Your task to perform on an android device: allow cookies in the chrome app Image 0: 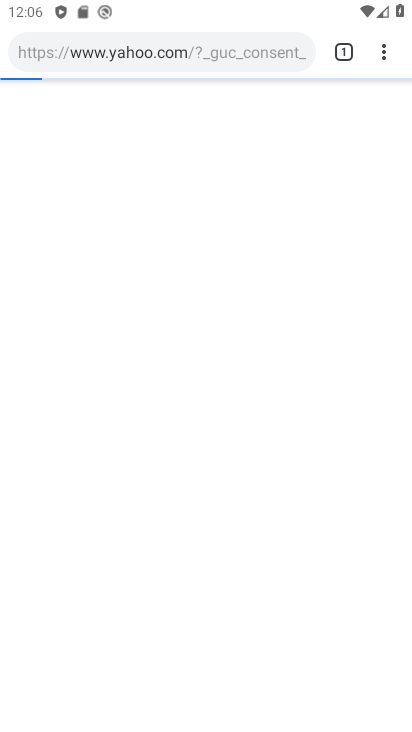
Step 0: press home button
Your task to perform on an android device: allow cookies in the chrome app Image 1: 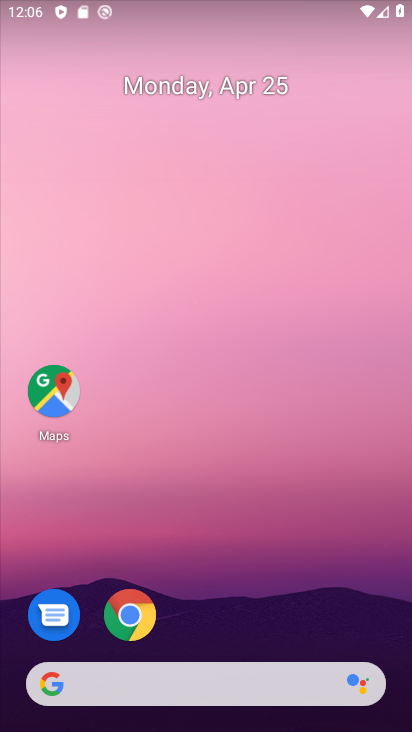
Step 1: drag from (371, 634) to (386, 100)
Your task to perform on an android device: allow cookies in the chrome app Image 2: 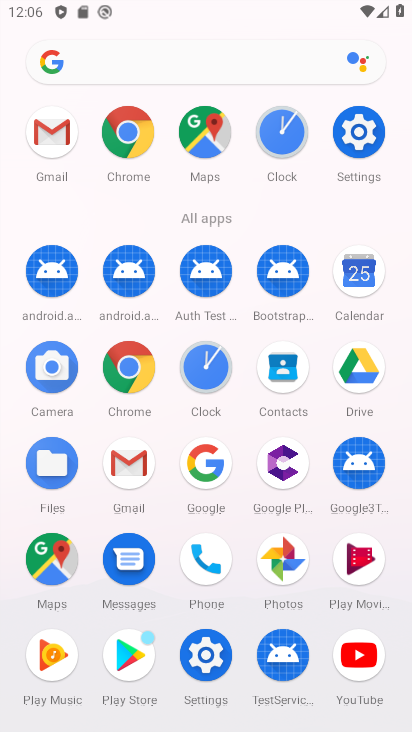
Step 2: click (131, 134)
Your task to perform on an android device: allow cookies in the chrome app Image 3: 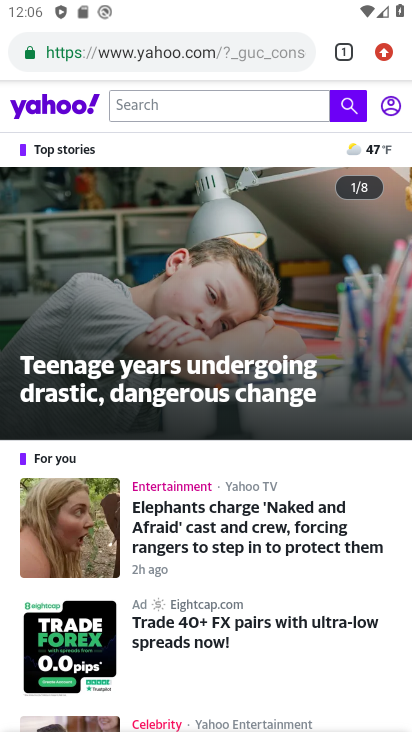
Step 3: click (388, 49)
Your task to perform on an android device: allow cookies in the chrome app Image 4: 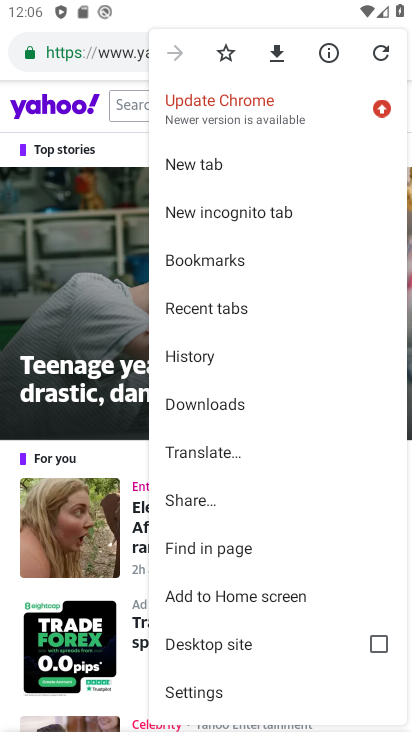
Step 4: click (209, 694)
Your task to perform on an android device: allow cookies in the chrome app Image 5: 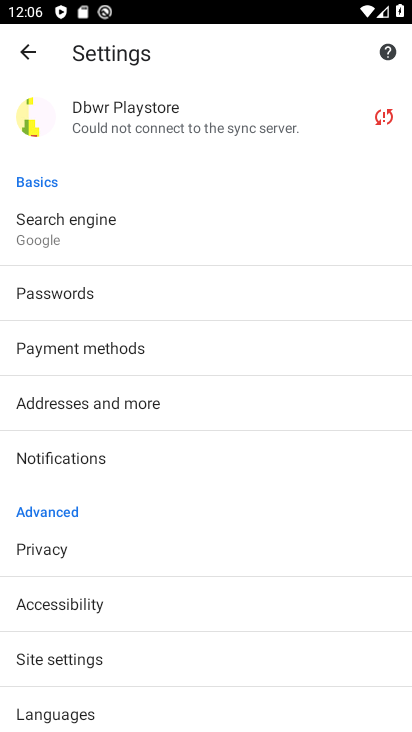
Step 5: drag from (260, 598) to (258, 499)
Your task to perform on an android device: allow cookies in the chrome app Image 6: 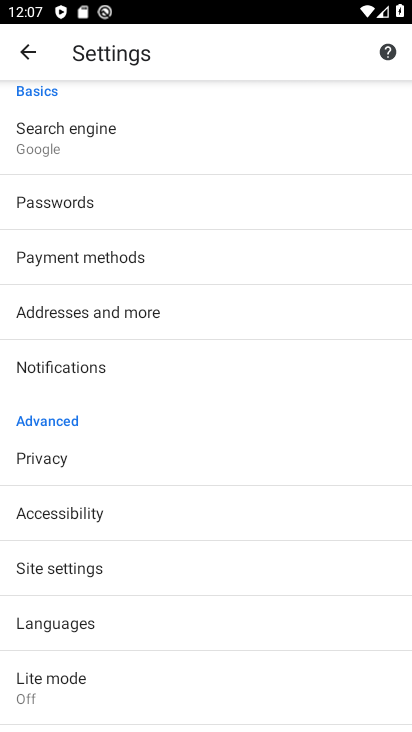
Step 6: drag from (250, 637) to (265, 527)
Your task to perform on an android device: allow cookies in the chrome app Image 7: 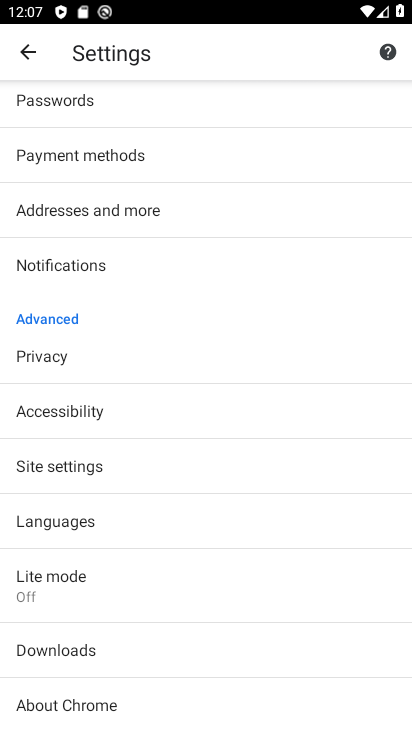
Step 7: drag from (238, 587) to (255, 484)
Your task to perform on an android device: allow cookies in the chrome app Image 8: 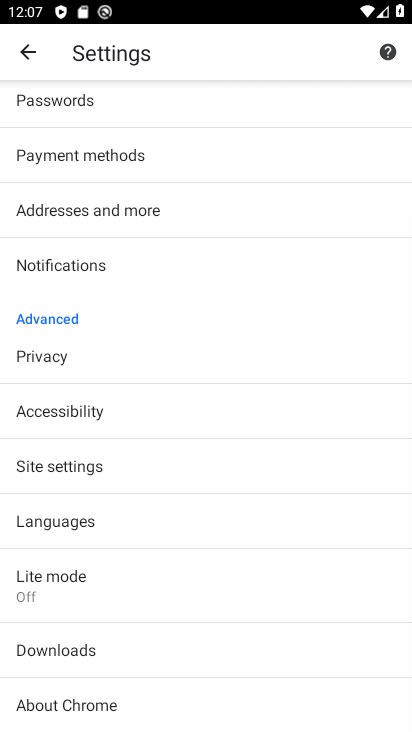
Step 8: drag from (262, 384) to (254, 449)
Your task to perform on an android device: allow cookies in the chrome app Image 9: 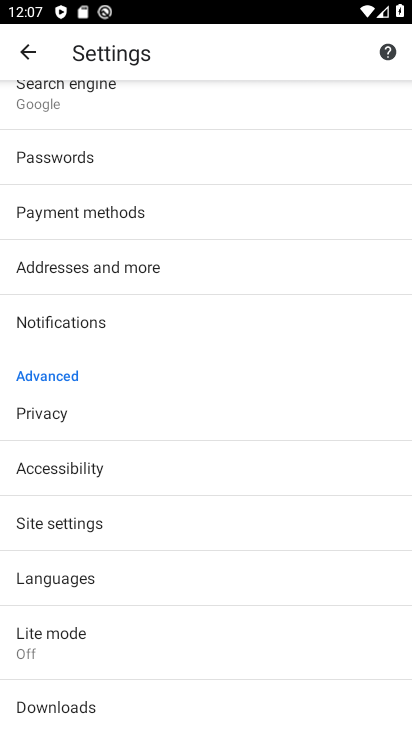
Step 9: drag from (265, 377) to (259, 414)
Your task to perform on an android device: allow cookies in the chrome app Image 10: 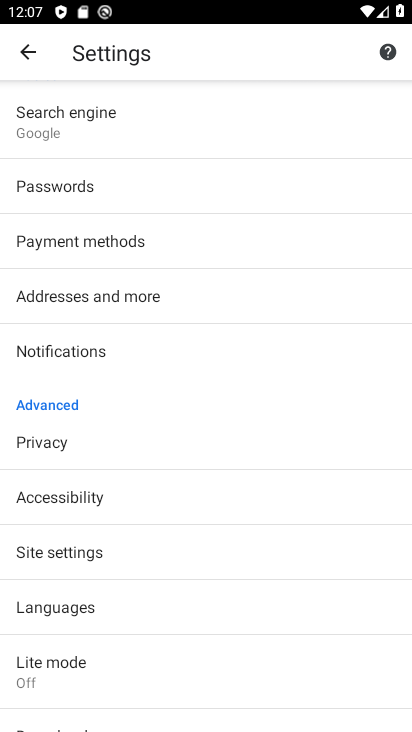
Step 10: click (257, 396)
Your task to perform on an android device: allow cookies in the chrome app Image 11: 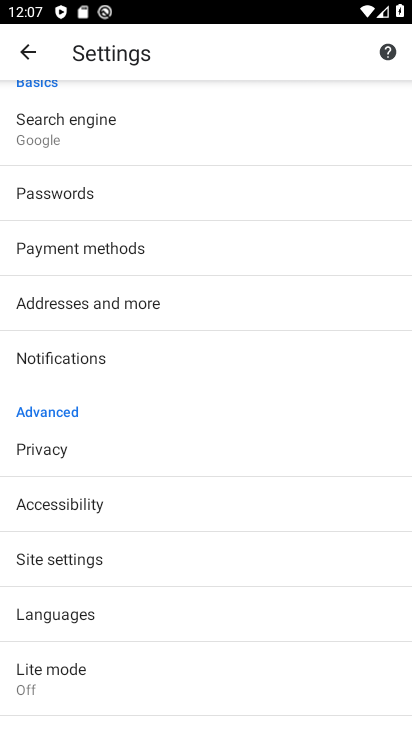
Step 11: click (257, 398)
Your task to perform on an android device: allow cookies in the chrome app Image 12: 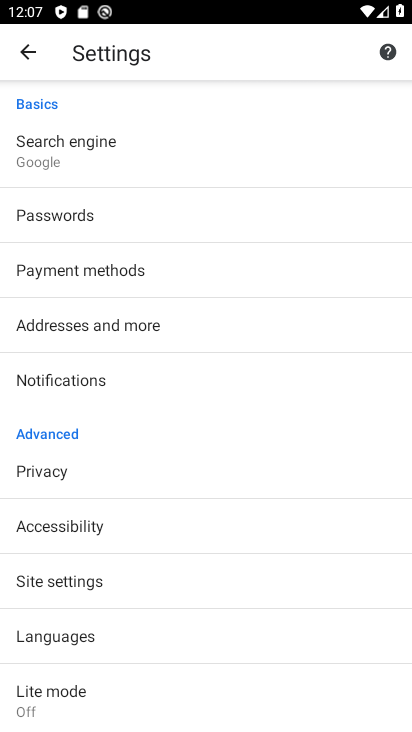
Step 12: drag from (269, 376) to (263, 442)
Your task to perform on an android device: allow cookies in the chrome app Image 13: 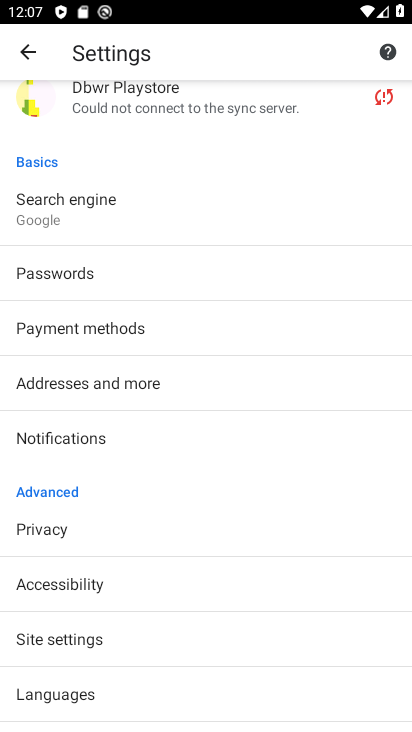
Step 13: drag from (269, 404) to (259, 506)
Your task to perform on an android device: allow cookies in the chrome app Image 14: 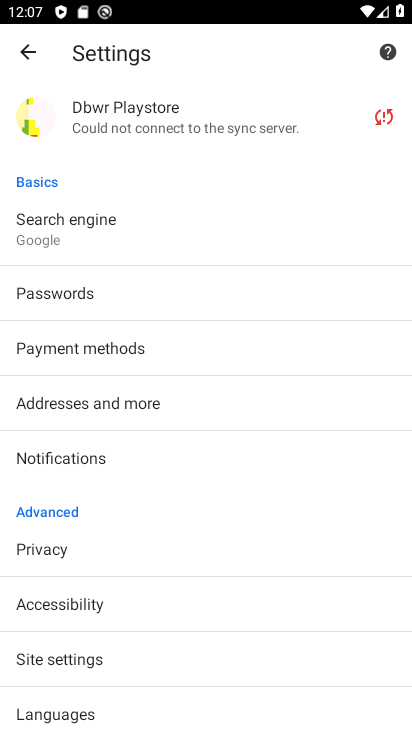
Step 14: drag from (278, 574) to (289, 506)
Your task to perform on an android device: allow cookies in the chrome app Image 15: 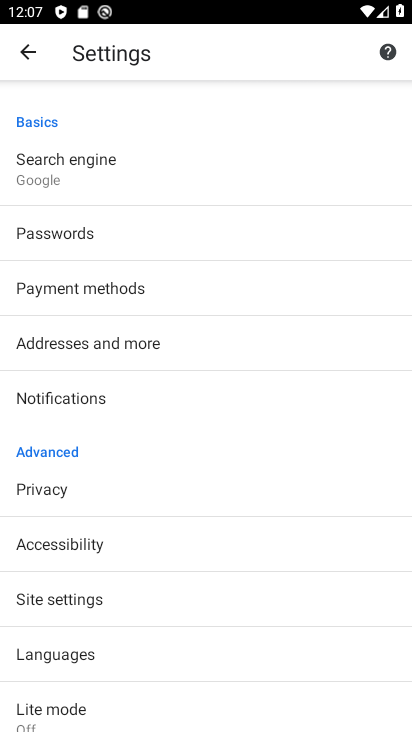
Step 15: drag from (302, 583) to (300, 546)
Your task to perform on an android device: allow cookies in the chrome app Image 16: 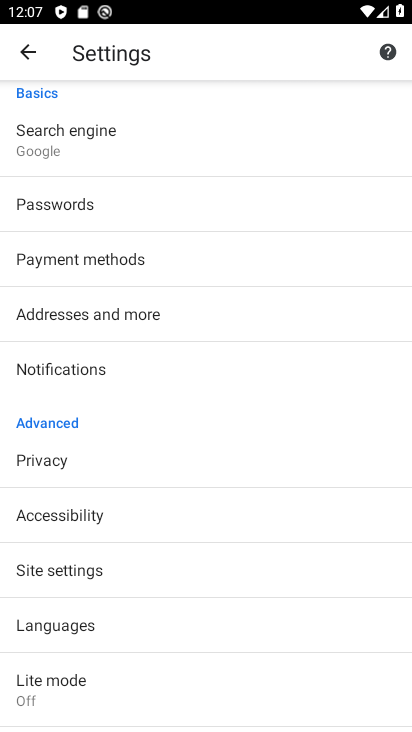
Step 16: drag from (296, 586) to (303, 541)
Your task to perform on an android device: allow cookies in the chrome app Image 17: 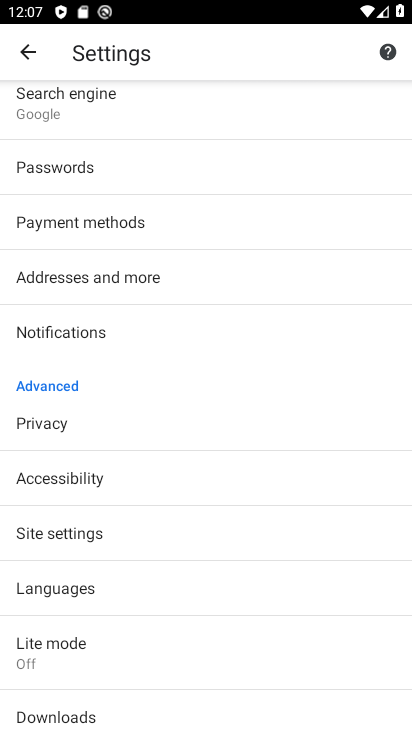
Step 17: click (204, 529)
Your task to perform on an android device: allow cookies in the chrome app Image 18: 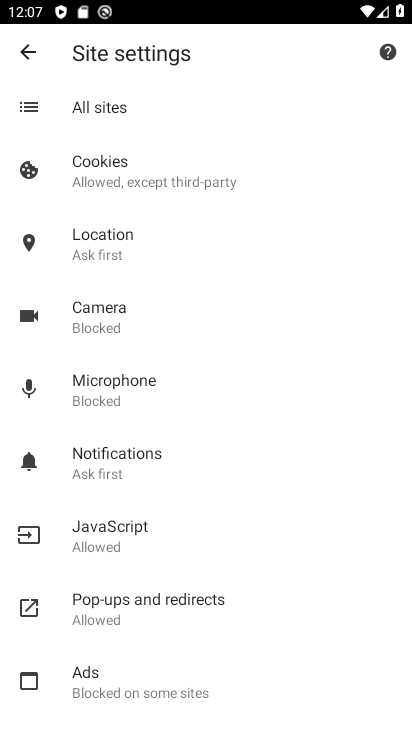
Step 18: click (254, 172)
Your task to perform on an android device: allow cookies in the chrome app Image 19: 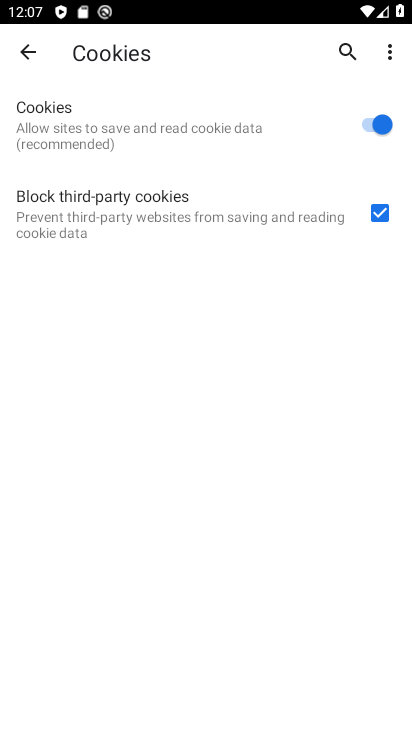
Step 19: task complete